Your task to perform on an android device: Open Reddit.com Image 0: 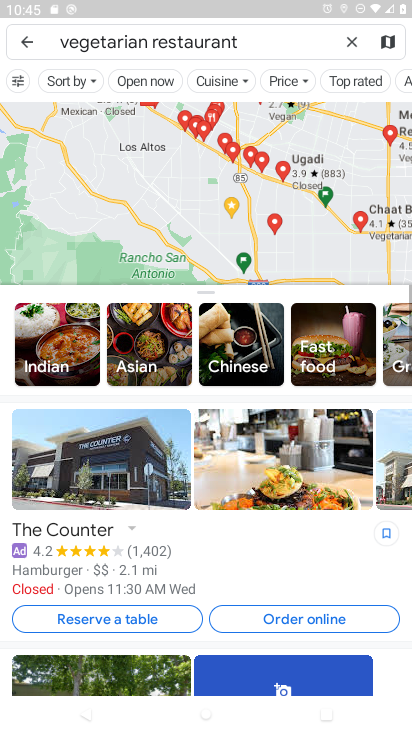
Step 0: press home button
Your task to perform on an android device: Open Reddit.com Image 1: 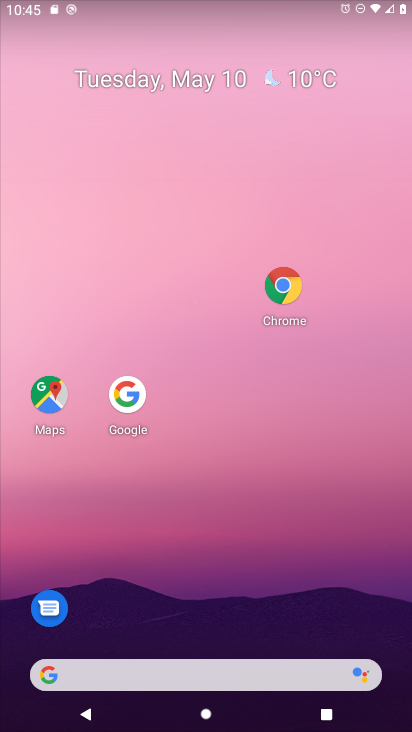
Step 1: drag from (186, 661) to (278, 123)
Your task to perform on an android device: Open Reddit.com Image 2: 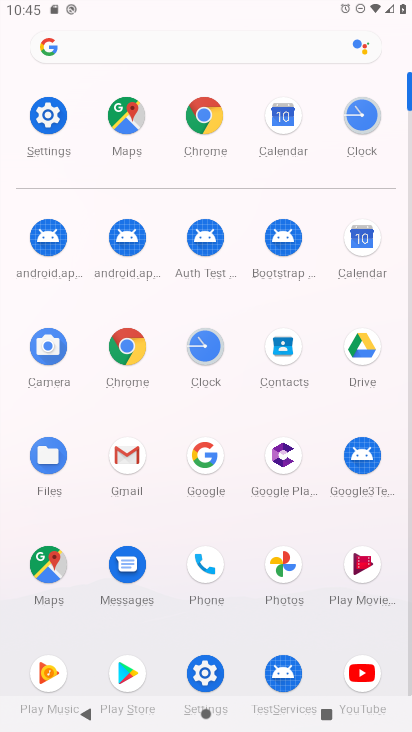
Step 2: click (218, 119)
Your task to perform on an android device: Open Reddit.com Image 3: 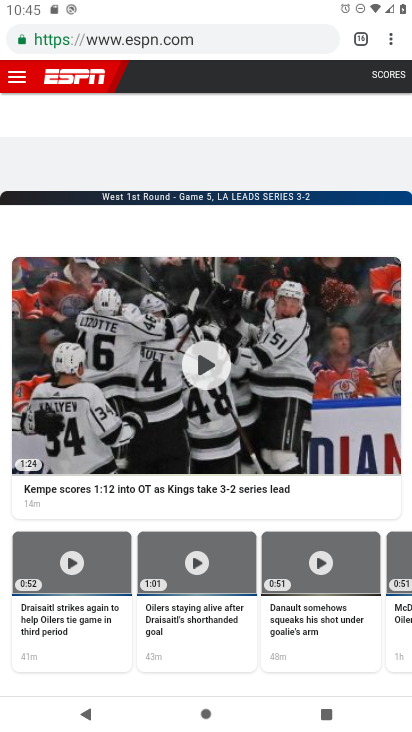
Step 3: drag from (390, 41) to (327, 85)
Your task to perform on an android device: Open Reddit.com Image 4: 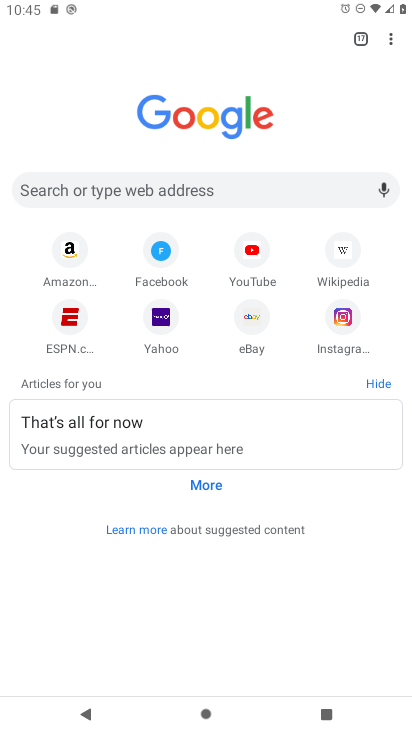
Step 4: click (114, 189)
Your task to perform on an android device: Open Reddit.com Image 5: 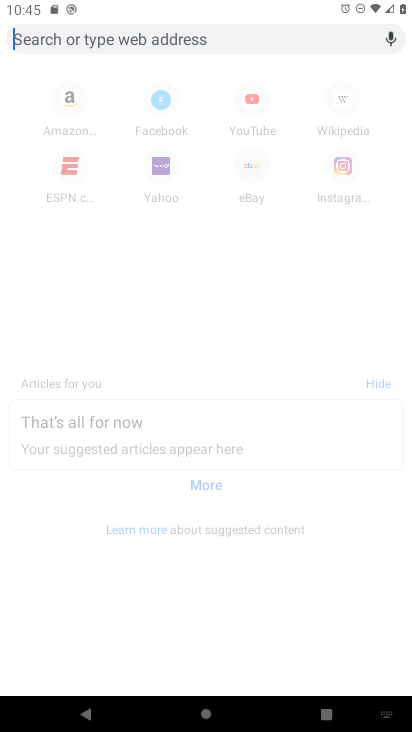
Step 5: type "reddit.com"
Your task to perform on an android device: Open Reddit.com Image 6: 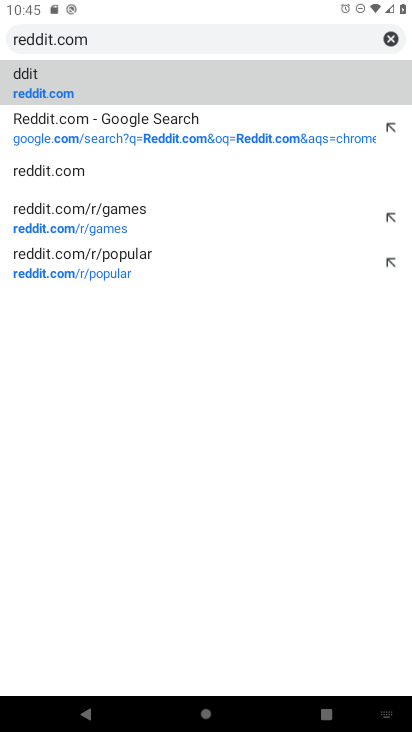
Step 6: click (64, 171)
Your task to perform on an android device: Open Reddit.com Image 7: 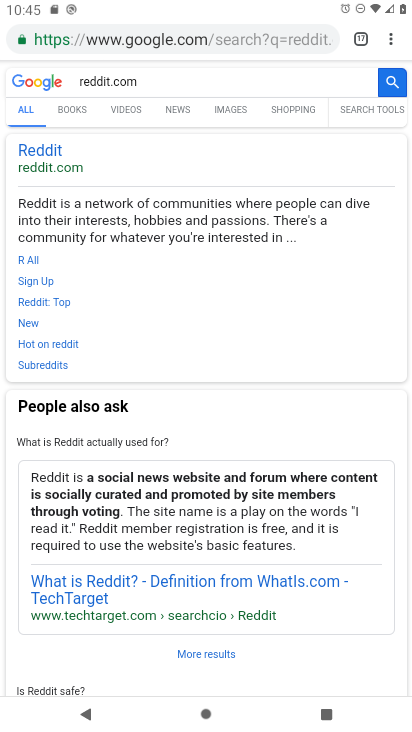
Step 7: click (47, 148)
Your task to perform on an android device: Open Reddit.com Image 8: 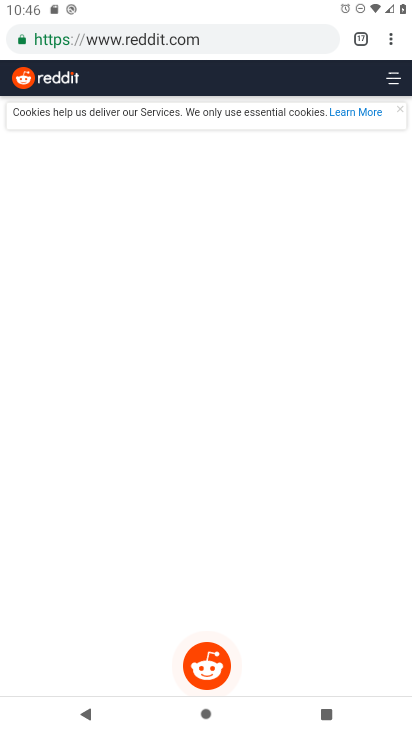
Step 8: task complete